Your task to perform on an android device: check battery use Image 0: 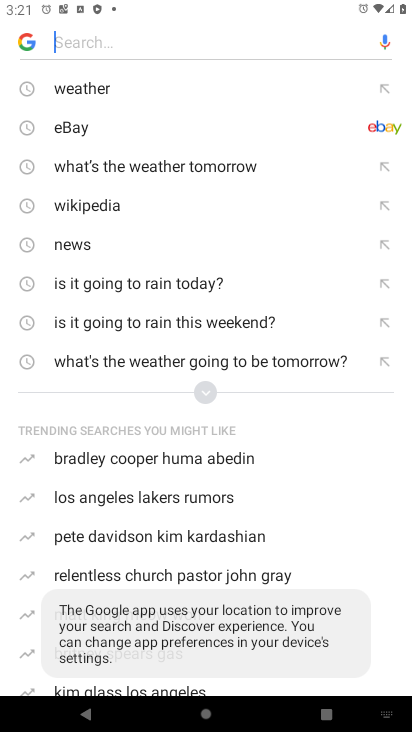
Step 0: press home button
Your task to perform on an android device: check battery use Image 1: 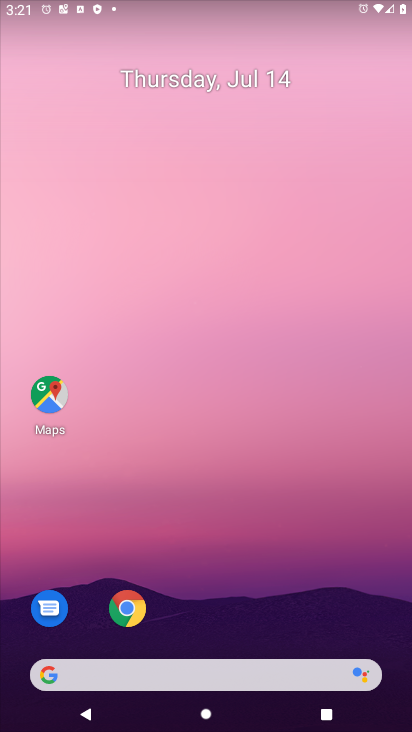
Step 1: drag from (396, 635) to (324, 120)
Your task to perform on an android device: check battery use Image 2: 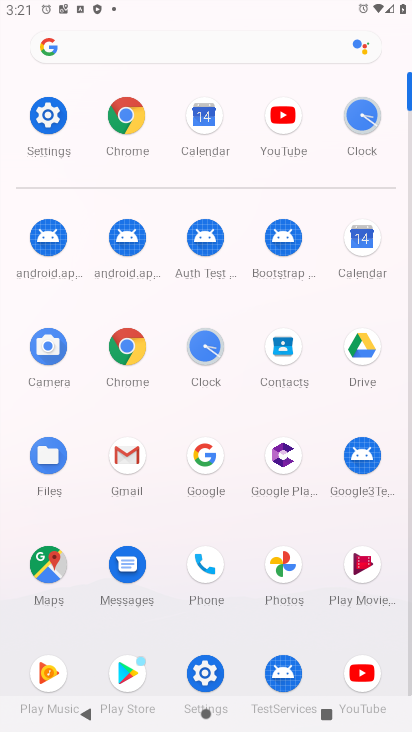
Step 2: click (208, 676)
Your task to perform on an android device: check battery use Image 3: 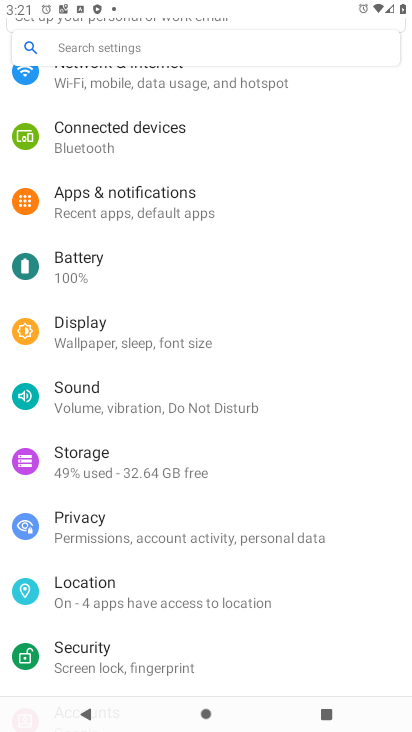
Step 3: click (69, 264)
Your task to perform on an android device: check battery use Image 4: 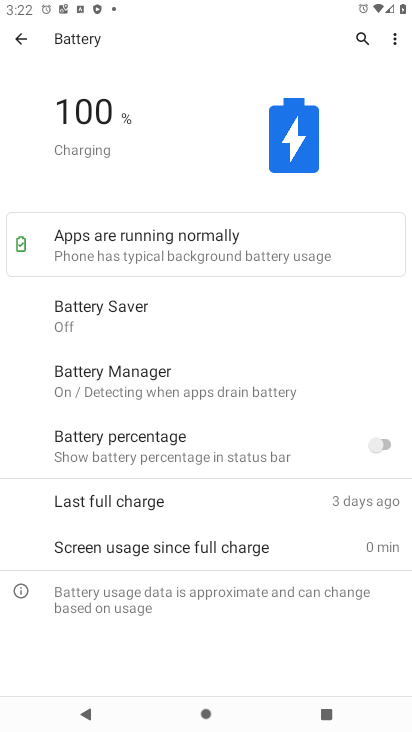
Step 4: click (393, 40)
Your task to perform on an android device: check battery use Image 5: 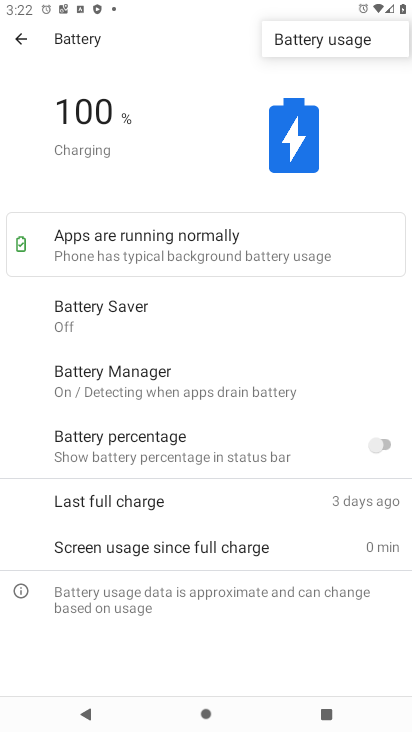
Step 5: click (312, 33)
Your task to perform on an android device: check battery use Image 6: 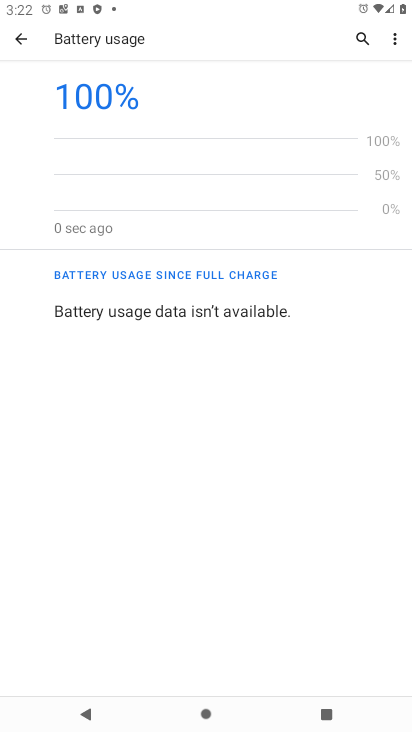
Step 6: task complete